Your task to perform on an android device: choose inbox layout in the gmail app Image 0: 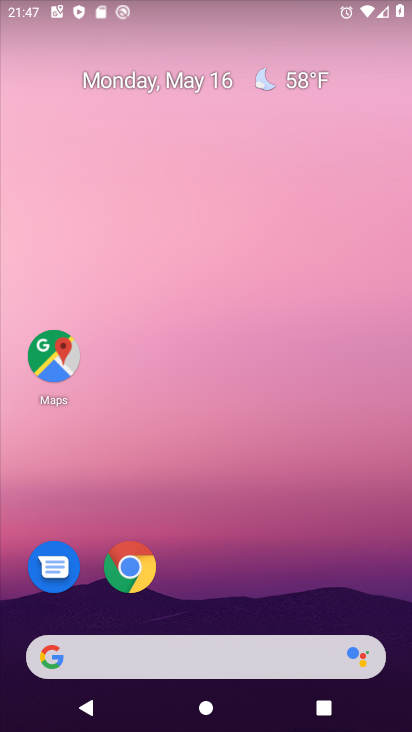
Step 0: drag from (271, 569) to (264, 268)
Your task to perform on an android device: choose inbox layout in the gmail app Image 1: 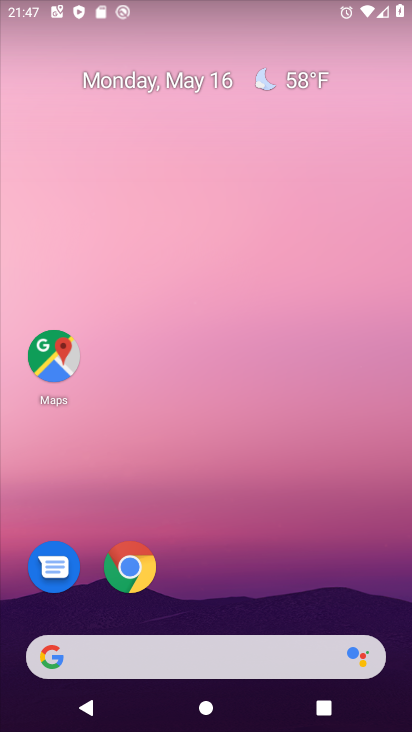
Step 1: drag from (228, 555) to (228, 220)
Your task to perform on an android device: choose inbox layout in the gmail app Image 2: 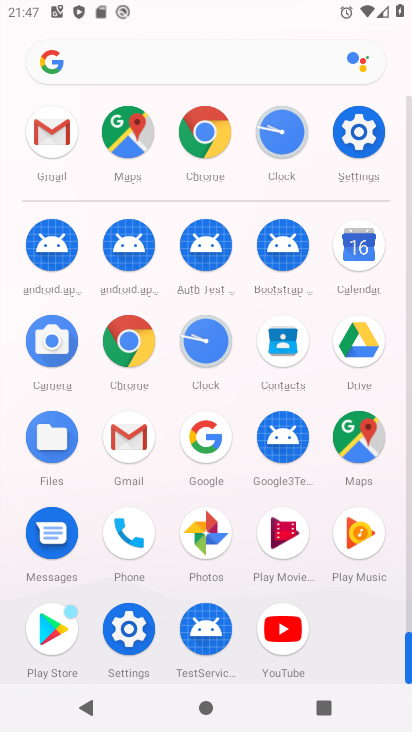
Step 2: click (137, 427)
Your task to perform on an android device: choose inbox layout in the gmail app Image 3: 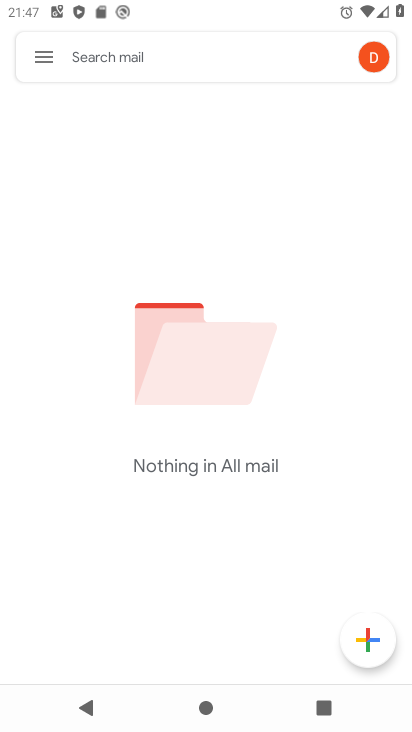
Step 3: click (42, 53)
Your task to perform on an android device: choose inbox layout in the gmail app Image 4: 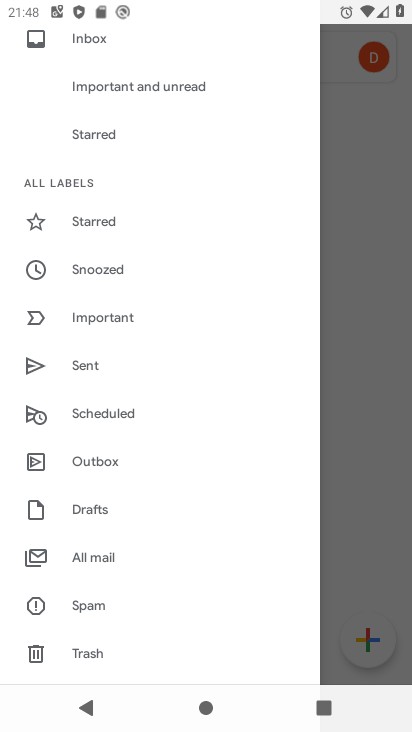
Step 4: drag from (161, 551) to (223, 212)
Your task to perform on an android device: choose inbox layout in the gmail app Image 5: 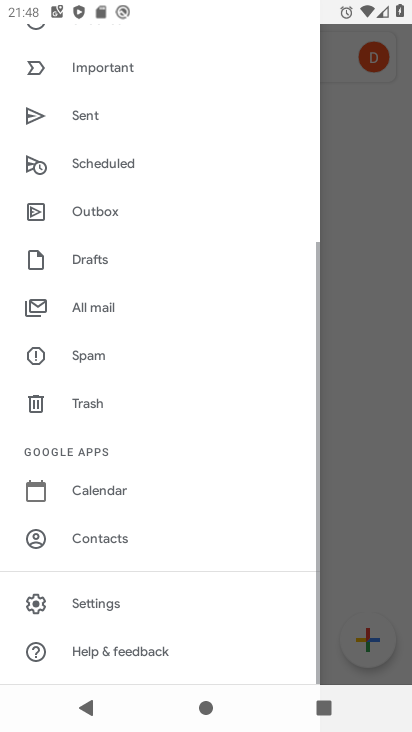
Step 5: click (103, 606)
Your task to perform on an android device: choose inbox layout in the gmail app Image 6: 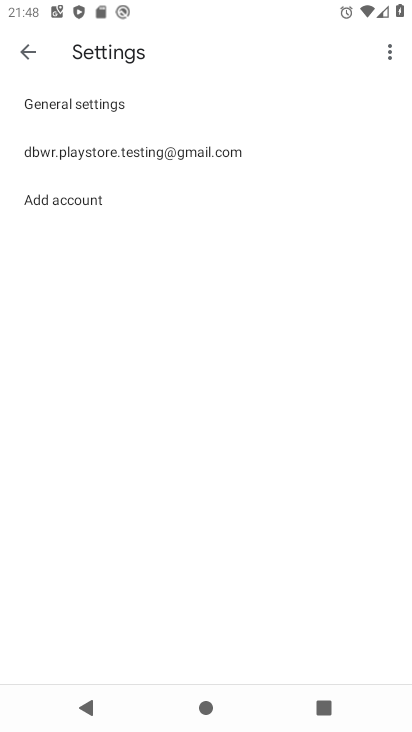
Step 6: click (183, 137)
Your task to perform on an android device: choose inbox layout in the gmail app Image 7: 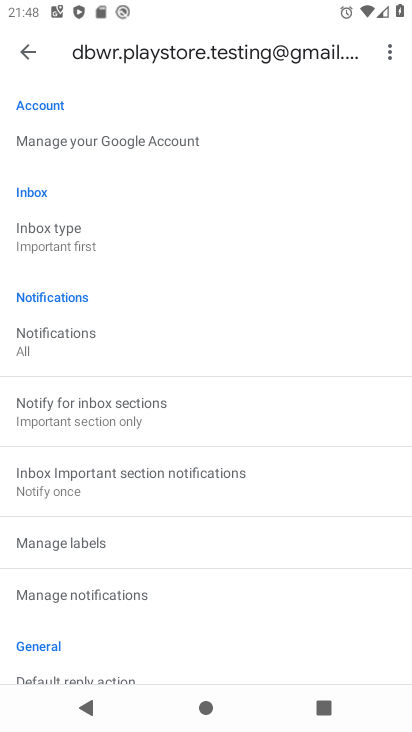
Step 7: drag from (176, 605) to (179, 639)
Your task to perform on an android device: choose inbox layout in the gmail app Image 8: 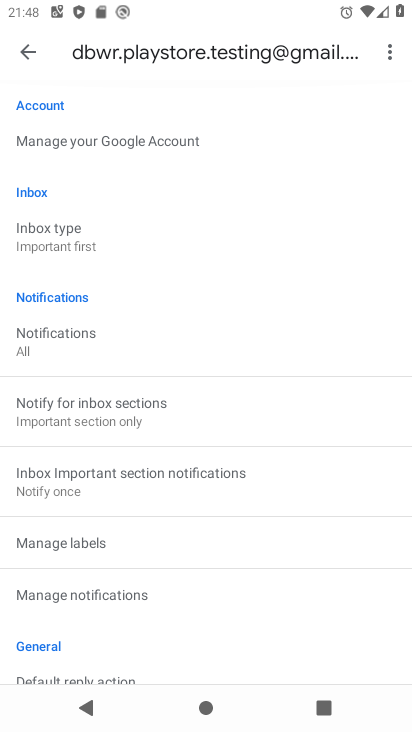
Step 8: drag from (124, 361) to (121, 578)
Your task to perform on an android device: choose inbox layout in the gmail app Image 9: 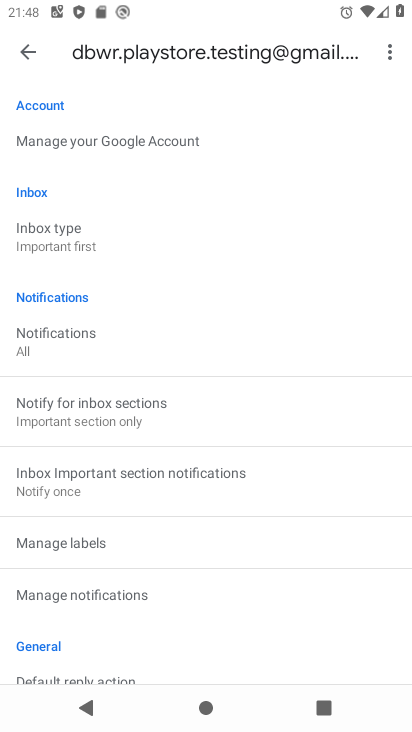
Step 9: click (35, 234)
Your task to perform on an android device: choose inbox layout in the gmail app Image 10: 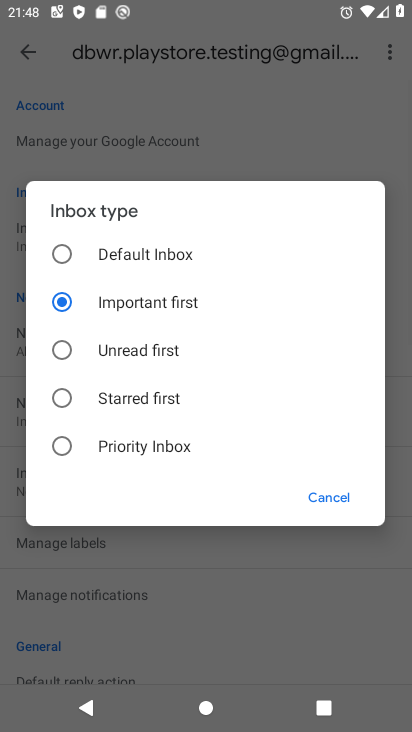
Step 10: click (160, 444)
Your task to perform on an android device: choose inbox layout in the gmail app Image 11: 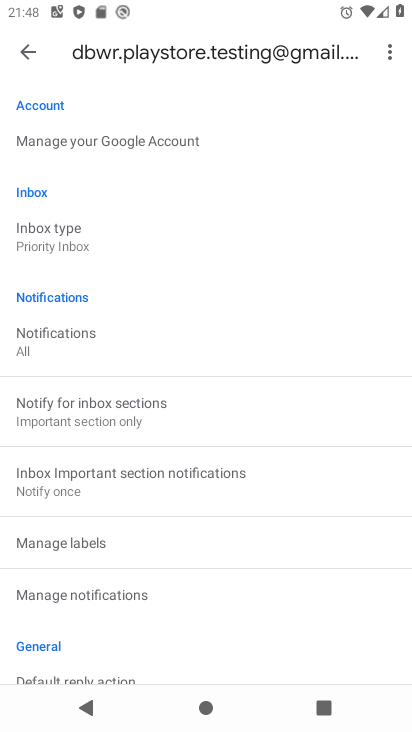
Step 11: task complete